Your task to perform on an android device: turn on javascript in the chrome app Image 0: 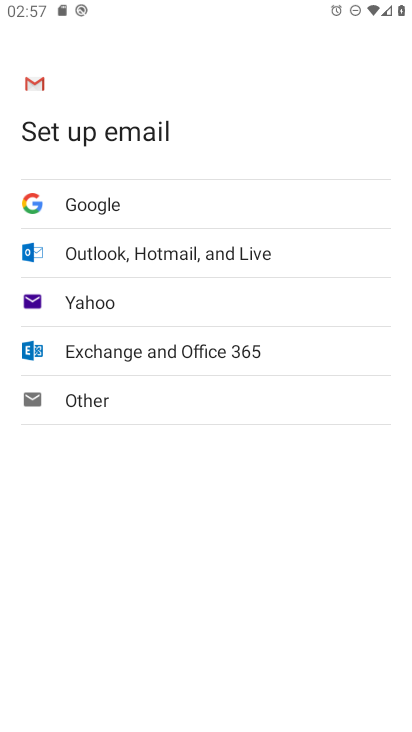
Step 0: press home button
Your task to perform on an android device: turn on javascript in the chrome app Image 1: 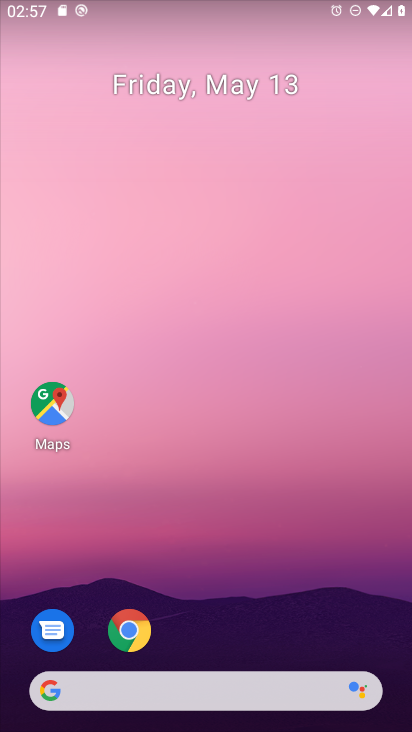
Step 1: drag from (184, 703) to (277, 92)
Your task to perform on an android device: turn on javascript in the chrome app Image 2: 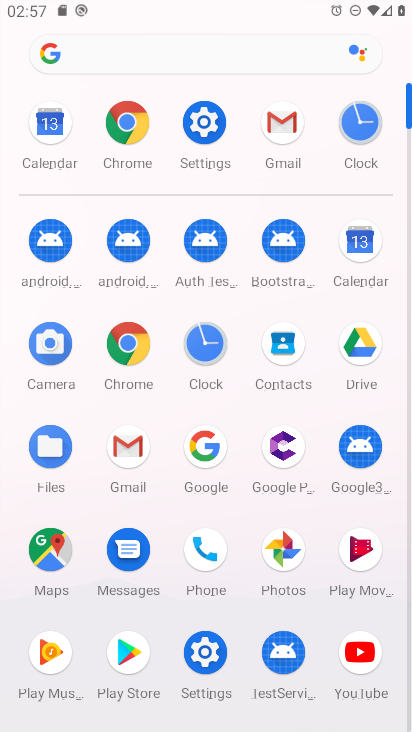
Step 2: click (124, 122)
Your task to perform on an android device: turn on javascript in the chrome app Image 3: 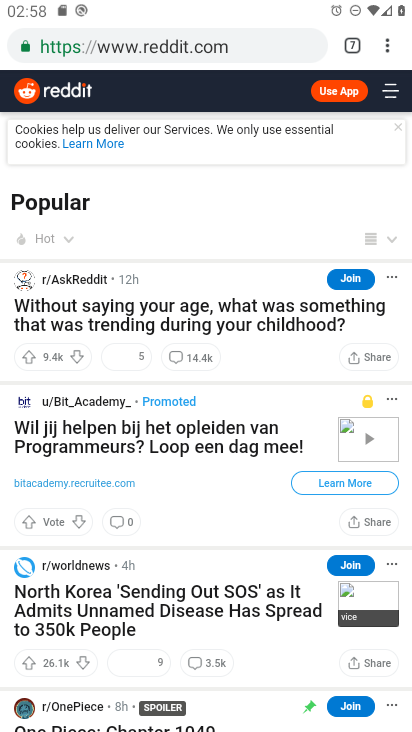
Step 3: click (381, 53)
Your task to perform on an android device: turn on javascript in the chrome app Image 4: 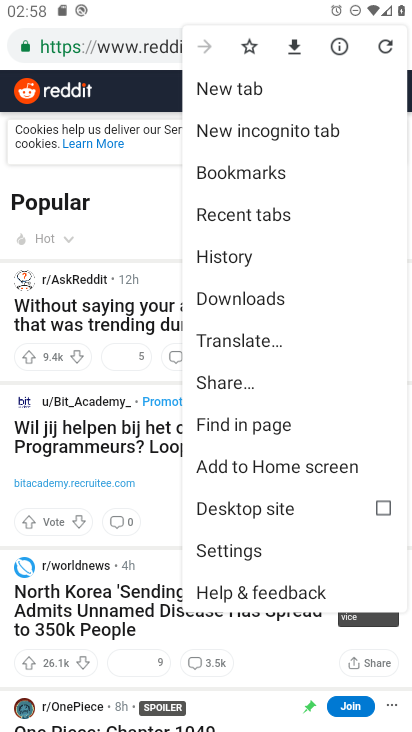
Step 4: click (258, 550)
Your task to perform on an android device: turn on javascript in the chrome app Image 5: 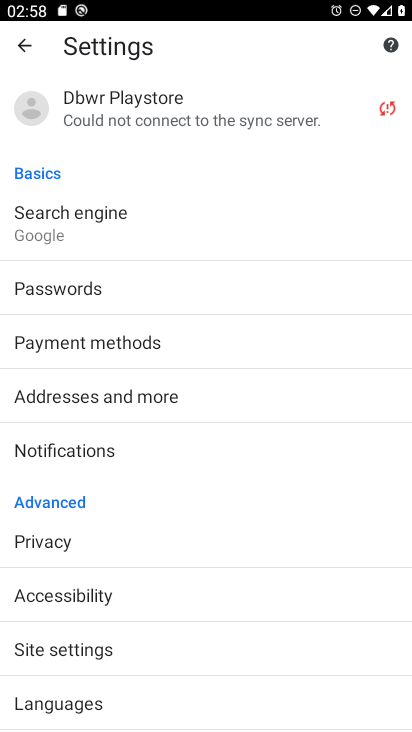
Step 5: click (101, 658)
Your task to perform on an android device: turn on javascript in the chrome app Image 6: 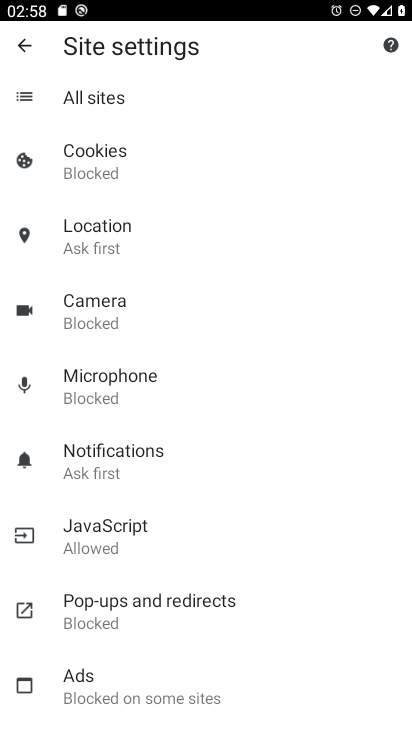
Step 6: click (188, 467)
Your task to perform on an android device: turn on javascript in the chrome app Image 7: 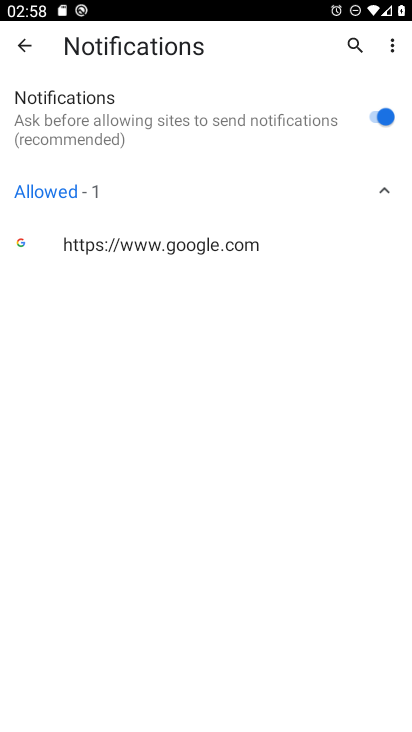
Step 7: click (28, 59)
Your task to perform on an android device: turn on javascript in the chrome app Image 8: 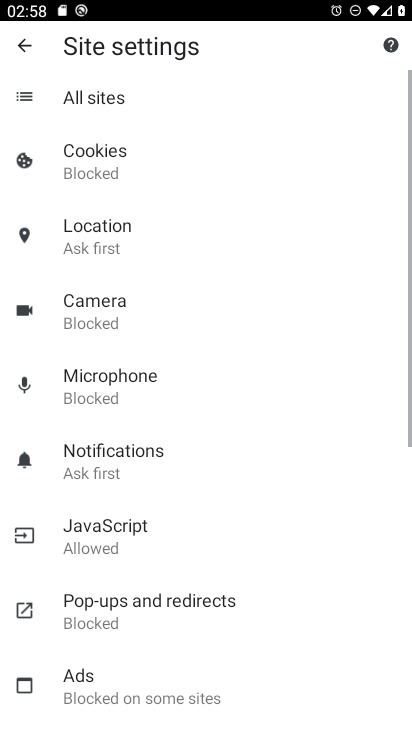
Step 8: click (107, 508)
Your task to perform on an android device: turn on javascript in the chrome app Image 9: 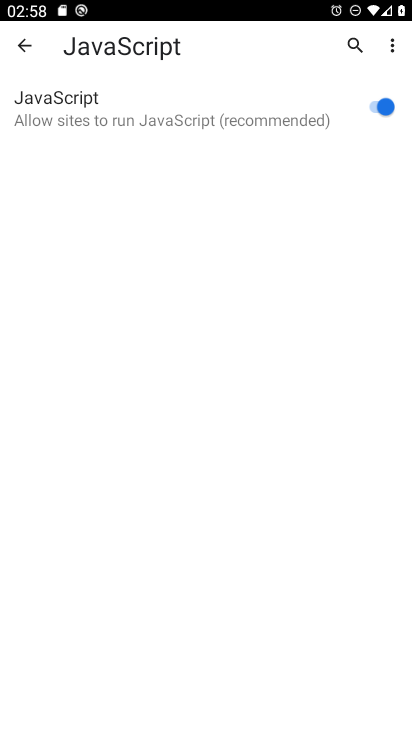
Step 9: task complete